Your task to perform on an android device: change the clock style Image 0: 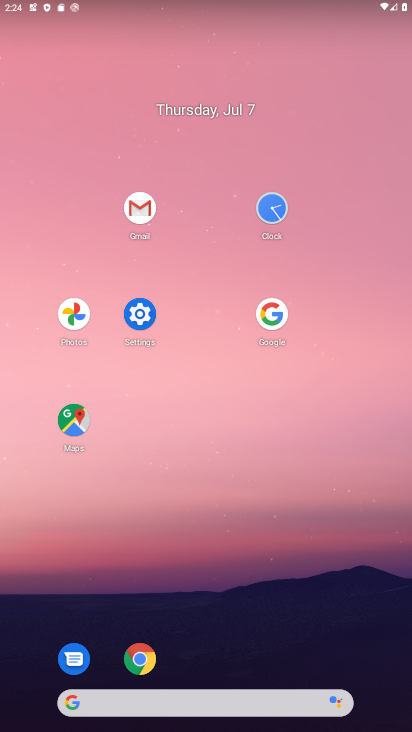
Step 0: click (271, 201)
Your task to perform on an android device: change the clock style Image 1: 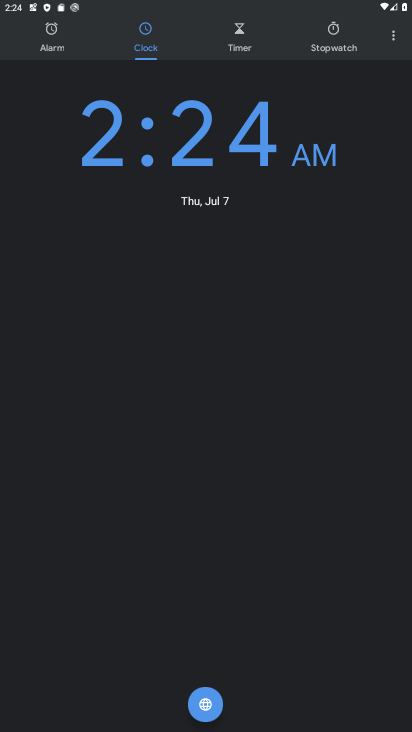
Step 1: click (392, 36)
Your task to perform on an android device: change the clock style Image 2: 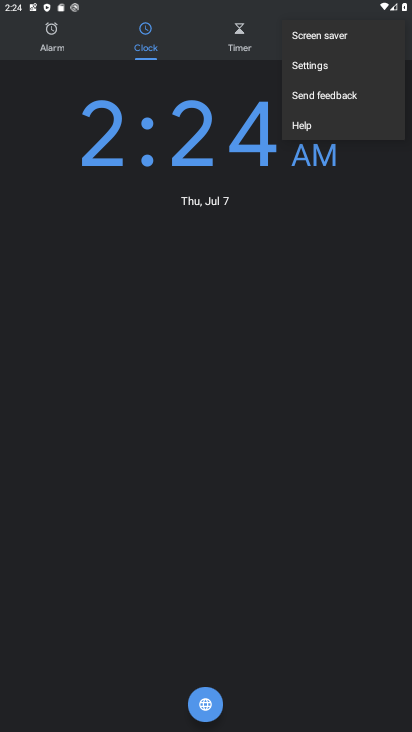
Step 2: click (346, 54)
Your task to perform on an android device: change the clock style Image 3: 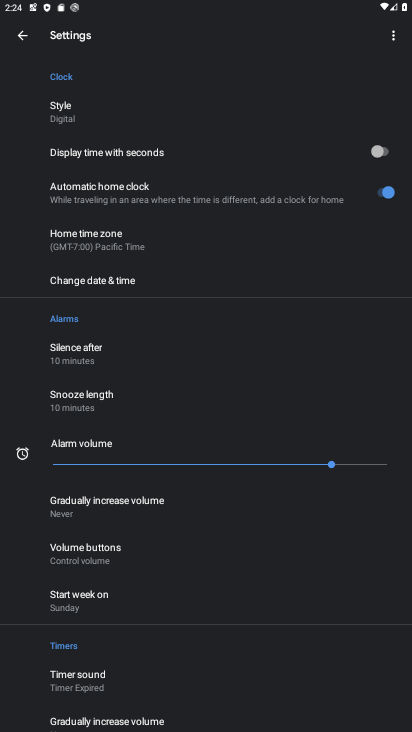
Step 3: click (75, 118)
Your task to perform on an android device: change the clock style Image 4: 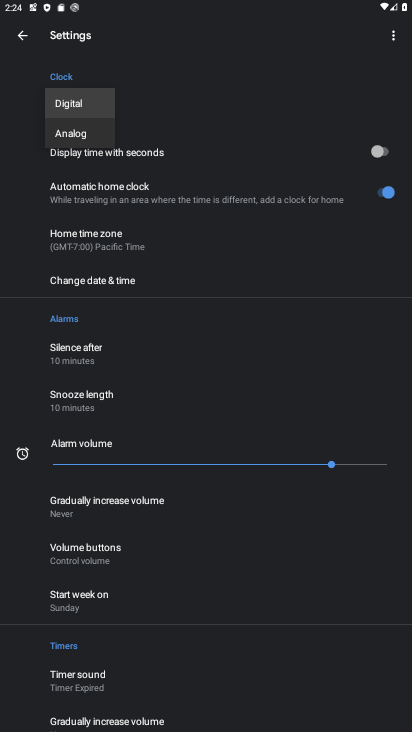
Step 4: click (101, 134)
Your task to perform on an android device: change the clock style Image 5: 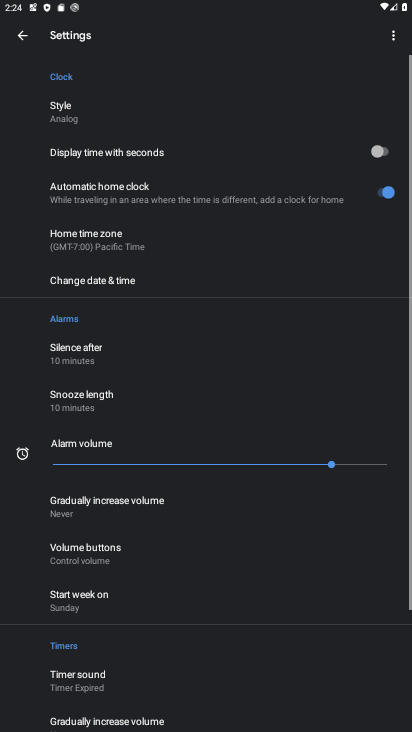
Step 5: task complete